Your task to perform on an android device: Go to accessibility settings Image 0: 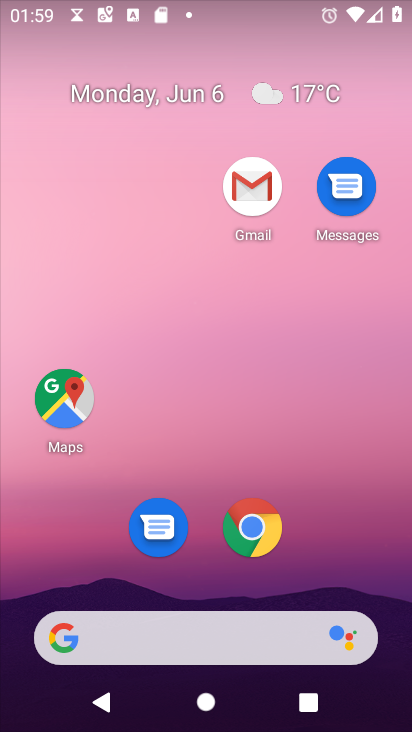
Step 0: drag from (343, 546) to (244, 29)
Your task to perform on an android device: Go to accessibility settings Image 1: 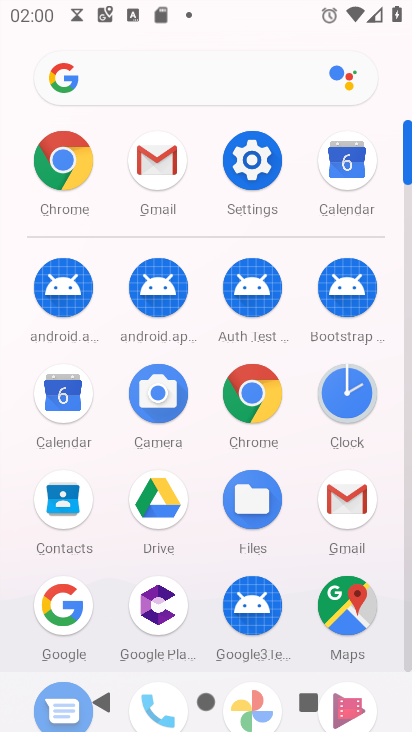
Step 1: click (247, 154)
Your task to perform on an android device: Go to accessibility settings Image 2: 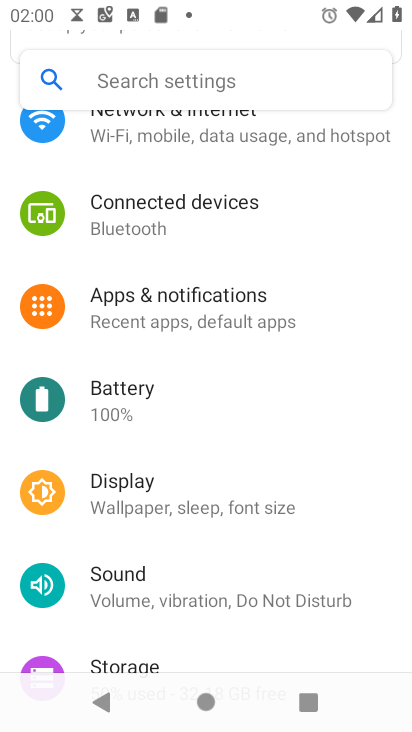
Step 2: drag from (117, 628) to (164, 110)
Your task to perform on an android device: Go to accessibility settings Image 3: 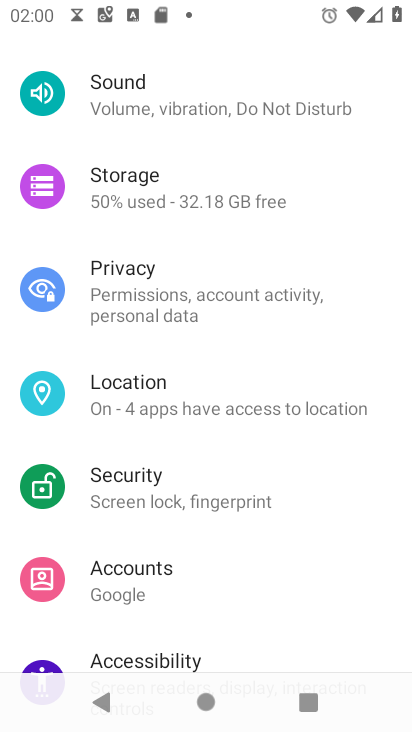
Step 3: click (135, 653)
Your task to perform on an android device: Go to accessibility settings Image 4: 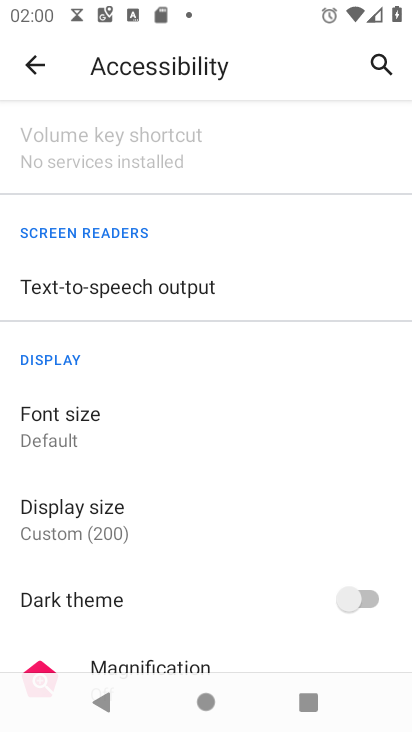
Step 4: task complete